Your task to perform on an android device: Turn off the flashlight Image 0: 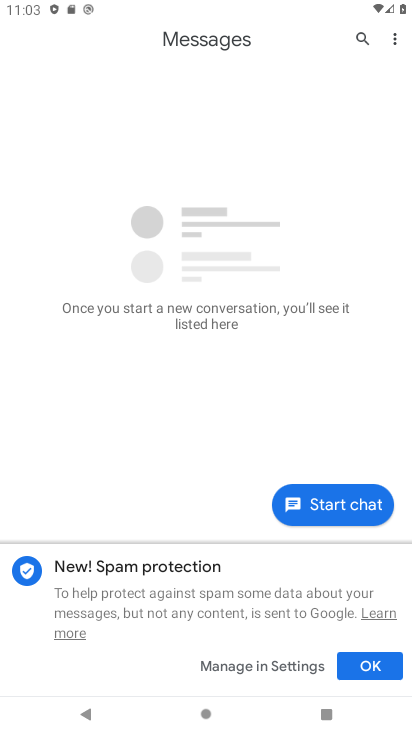
Step 0: press home button
Your task to perform on an android device: Turn off the flashlight Image 1: 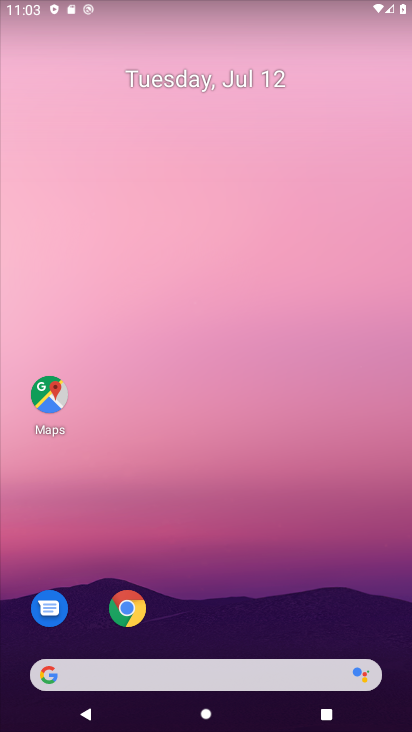
Step 1: drag from (241, 722) to (239, 81)
Your task to perform on an android device: Turn off the flashlight Image 2: 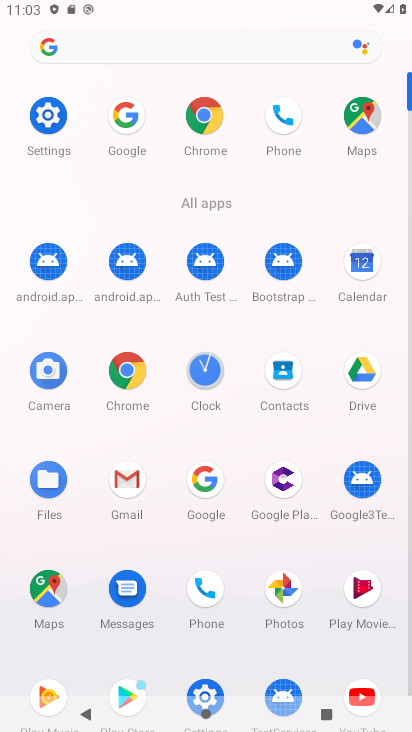
Step 2: click (51, 116)
Your task to perform on an android device: Turn off the flashlight Image 3: 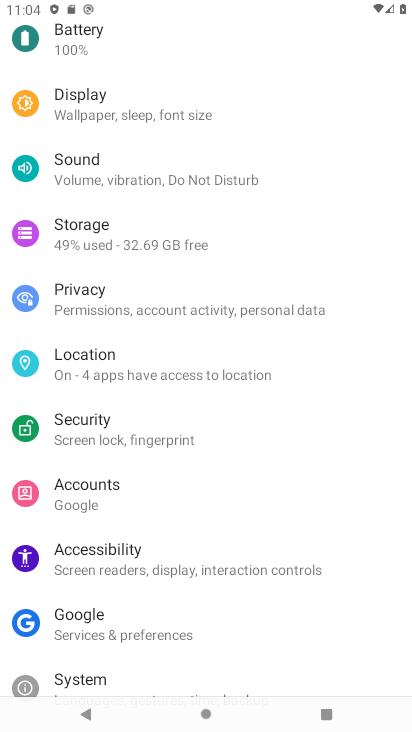
Step 3: task complete